Your task to perform on an android device: Find coffee shops on Maps Image 0: 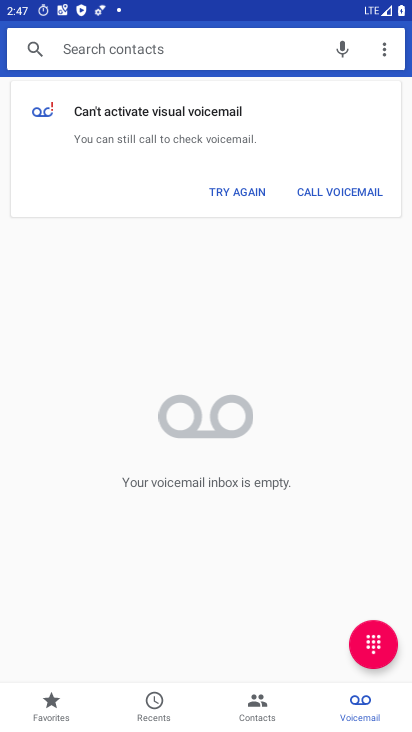
Step 0: press home button
Your task to perform on an android device: Find coffee shops on Maps Image 1: 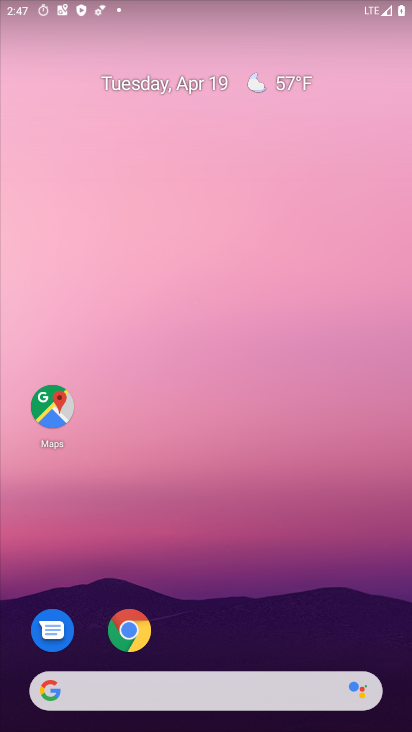
Step 1: click (59, 410)
Your task to perform on an android device: Find coffee shops on Maps Image 2: 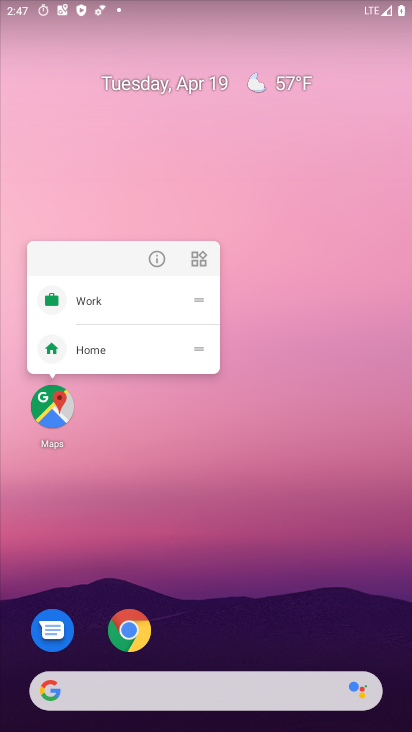
Step 2: click (50, 413)
Your task to perform on an android device: Find coffee shops on Maps Image 3: 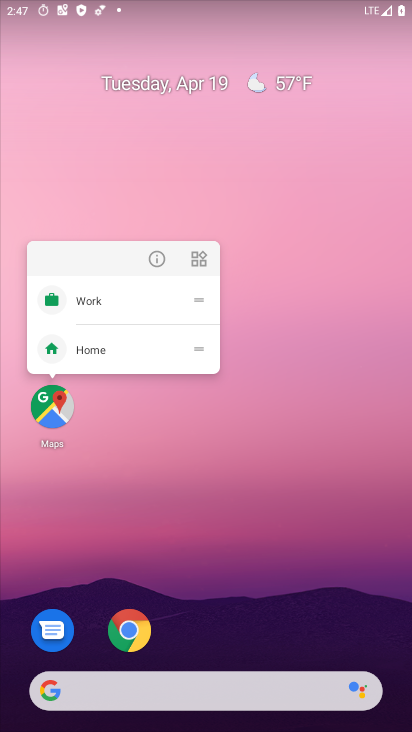
Step 3: click (48, 410)
Your task to perform on an android device: Find coffee shops on Maps Image 4: 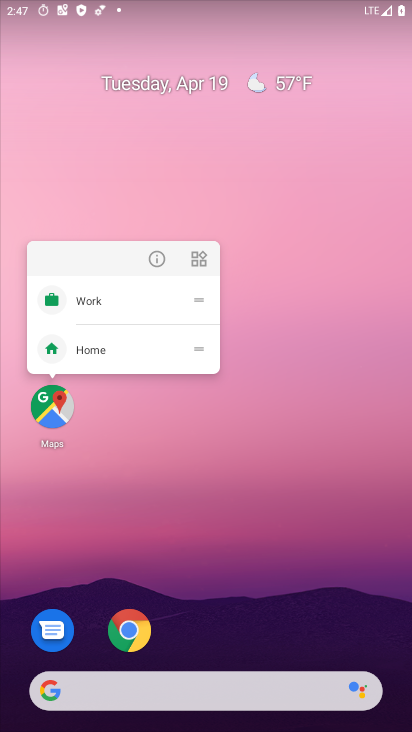
Step 4: click (48, 410)
Your task to perform on an android device: Find coffee shops on Maps Image 5: 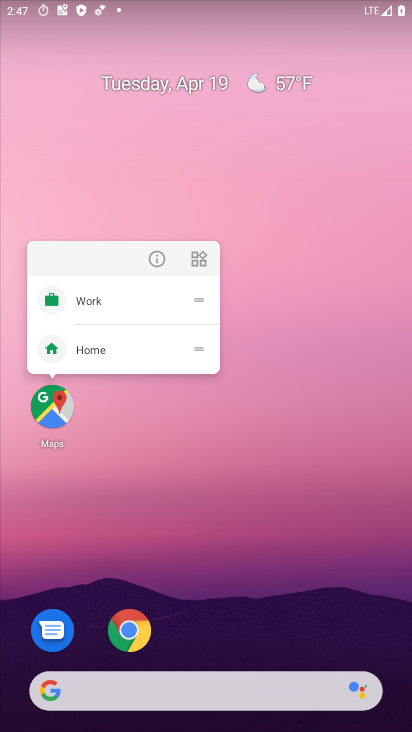
Step 5: click (48, 410)
Your task to perform on an android device: Find coffee shops on Maps Image 6: 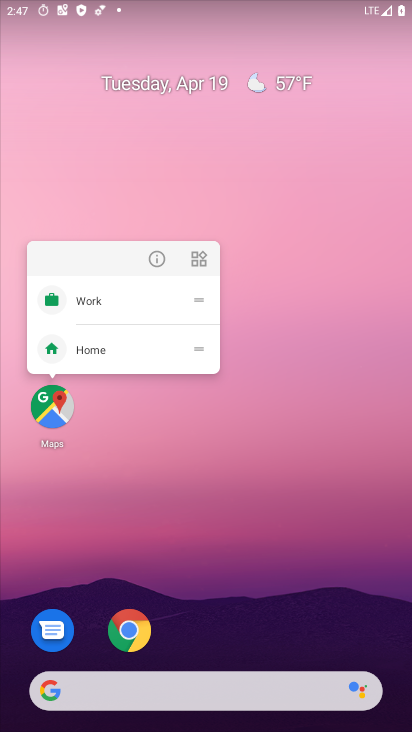
Step 6: click (48, 410)
Your task to perform on an android device: Find coffee shops on Maps Image 7: 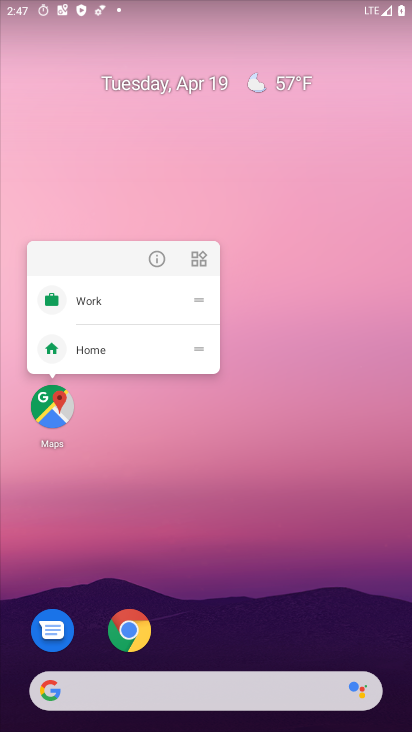
Step 7: click (48, 410)
Your task to perform on an android device: Find coffee shops on Maps Image 8: 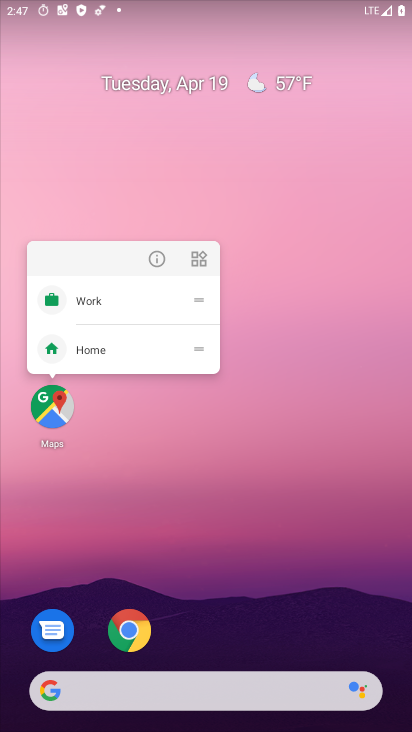
Step 8: click (47, 408)
Your task to perform on an android device: Find coffee shops on Maps Image 9: 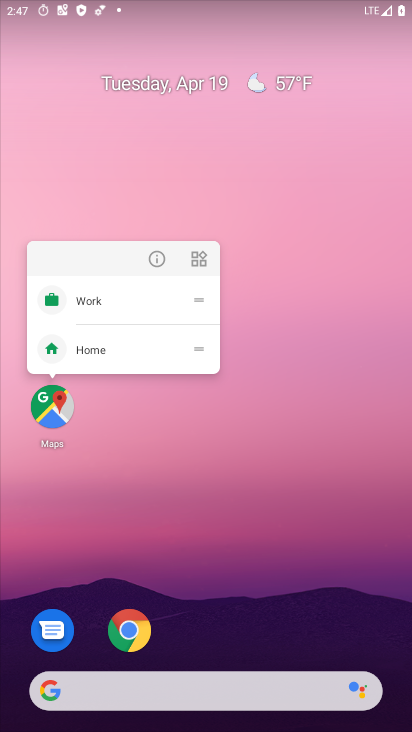
Step 9: click (47, 408)
Your task to perform on an android device: Find coffee shops on Maps Image 10: 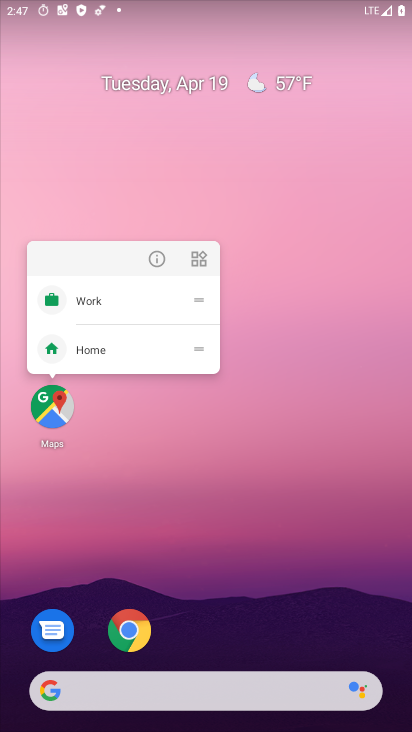
Step 10: click (47, 405)
Your task to perform on an android device: Find coffee shops on Maps Image 11: 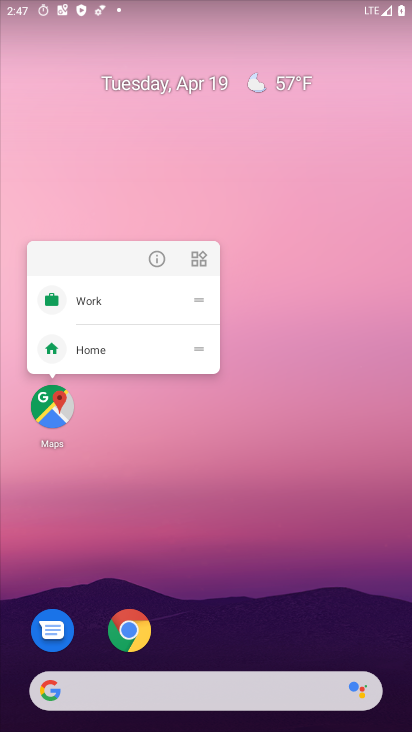
Step 11: click (43, 401)
Your task to perform on an android device: Find coffee shops on Maps Image 12: 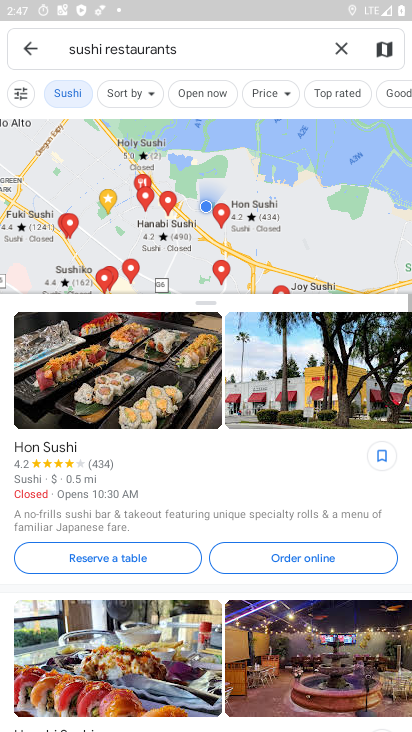
Step 12: click (337, 45)
Your task to perform on an android device: Find coffee shops on Maps Image 13: 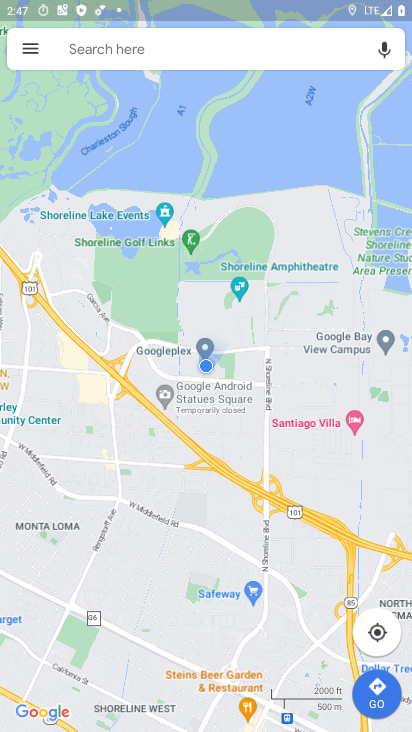
Step 13: click (162, 52)
Your task to perform on an android device: Find coffee shops on Maps Image 14: 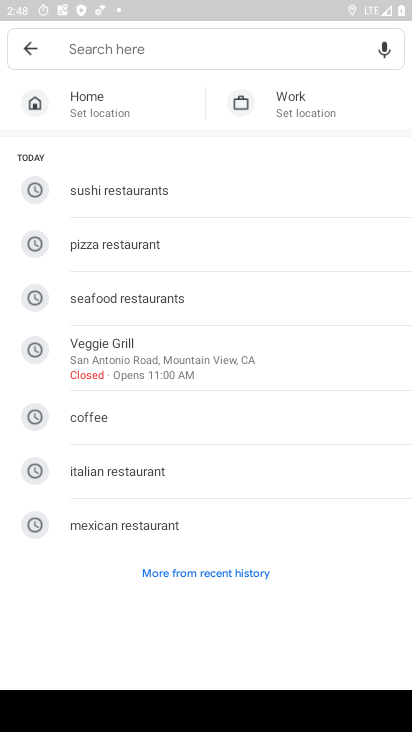
Step 14: type "coffee shops"
Your task to perform on an android device: Find coffee shops on Maps Image 15: 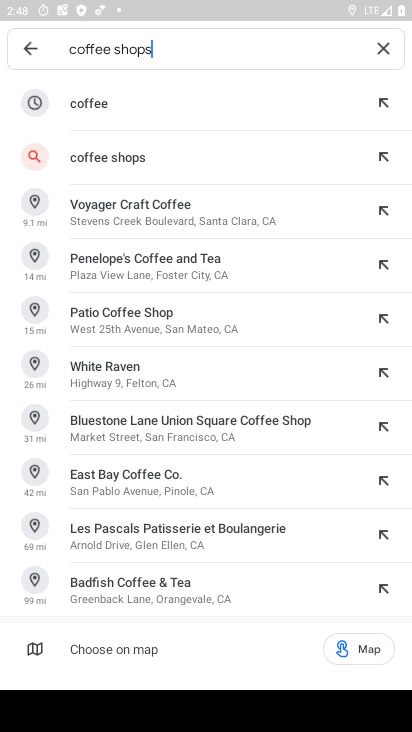
Step 15: click (176, 156)
Your task to perform on an android device: Find coffee shops on Maps Image 16: 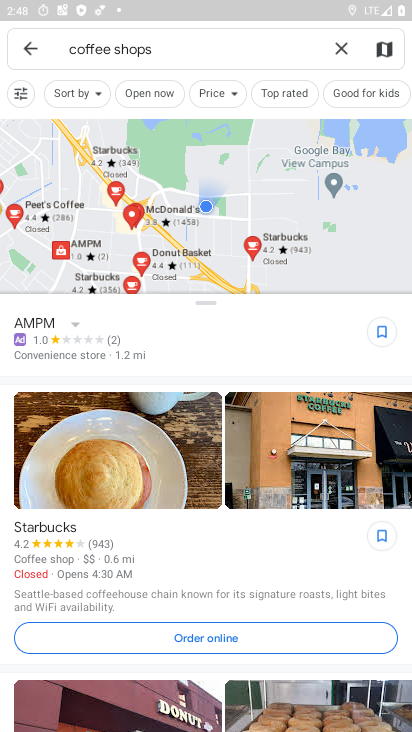
Step 16: task complete